Your task to perform on an android device: turn off javascript in the chrome app Image 0: 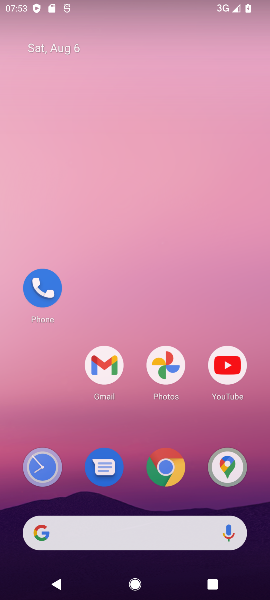
Step 0: press home button
Your task to perform on an android device: turn off javascript in the chrome app Image 1: 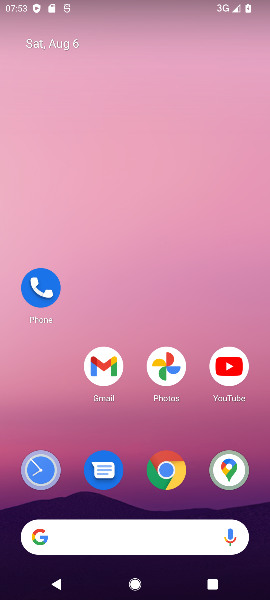
Step 1: drag from (109, 450) to (197, 83)
Your task to perform on an android device: turn off javascript in the chrome app Image 2: 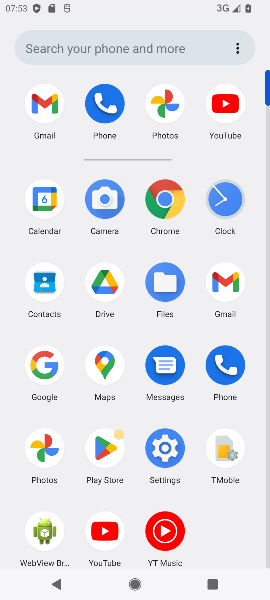
Step 2: click (161, 202)
Your task to perform on an android device: turn off javascript in the chrome app Image 3: 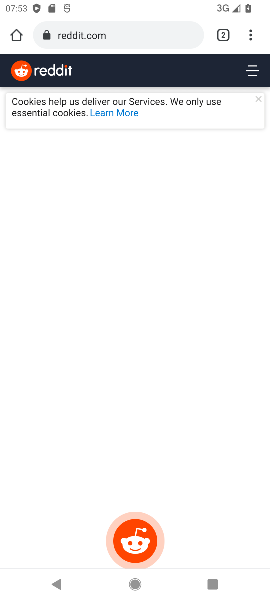
Step 3: drag from (248, 30) to (130, 496)
Your task to perform on an android device: turn off javascript in the chrome app Image 4: 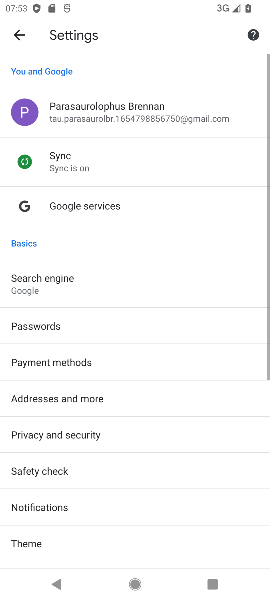
Step 4: drag from (67, 505) to (132, 122)
Your task to perform on an android device: turn off javascript in the chrome app Image 5: 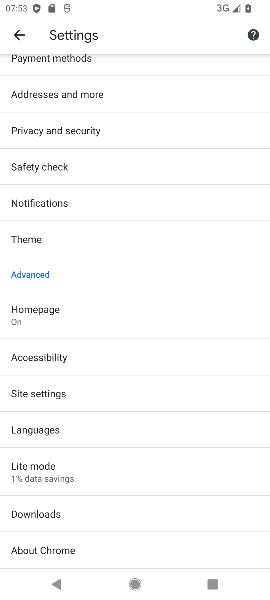
Step 5: click (63, 396)
Your task to perform on an android device: turn off javascript in the chrome app Image 6: 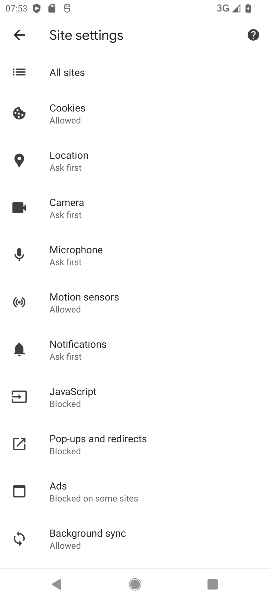
Step 6: click (63, 396)
Your task to perform on an android device: turn off javascript in the chrome app Image 7: 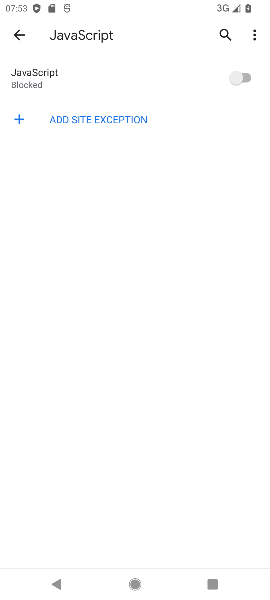
Step 7: task complete